Your task to perform on an android device: Open Google Chrome and open the bookmarks view Image 0: 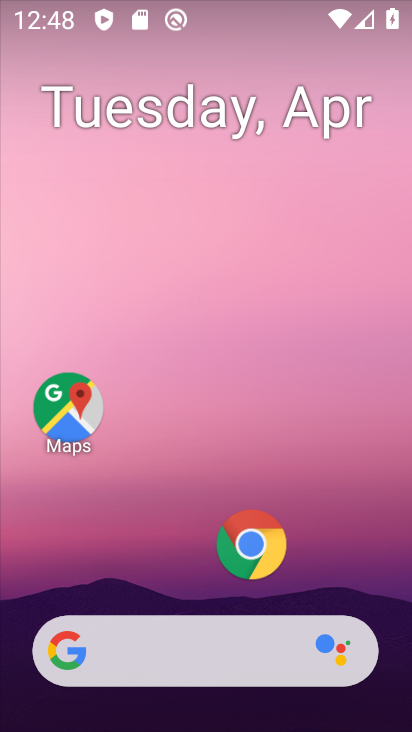
Step 0: drag from (332, 415) to (345, 178)
Your task to perform on an android device: Open Google Chrome and open the bookmarks view Image 1: 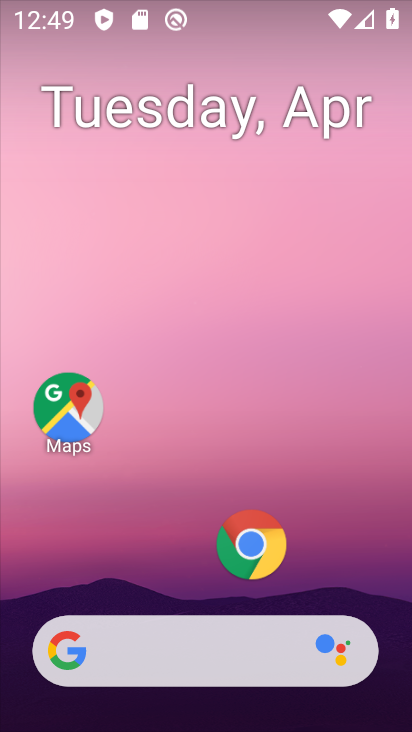
Step 1: drag from (141, 552) to (231, 62)
Your task to perform on an android device: Open Google Chrome and open the bookmarks view Image 2: 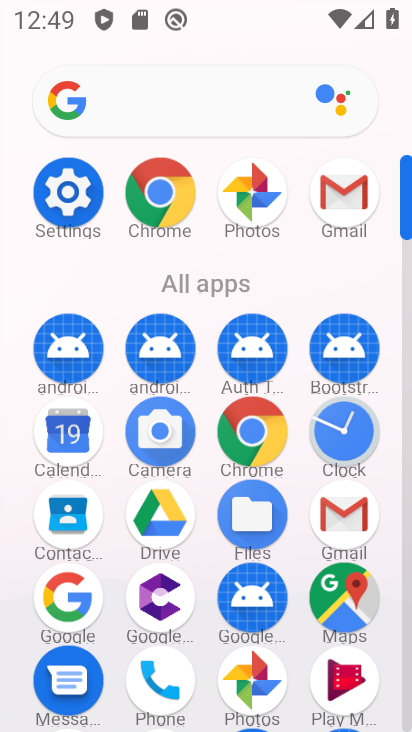
Step 2: click (255, 434)
Your task to perform on an android device: Open Google Chrome and open the bookmarks view Image 3: 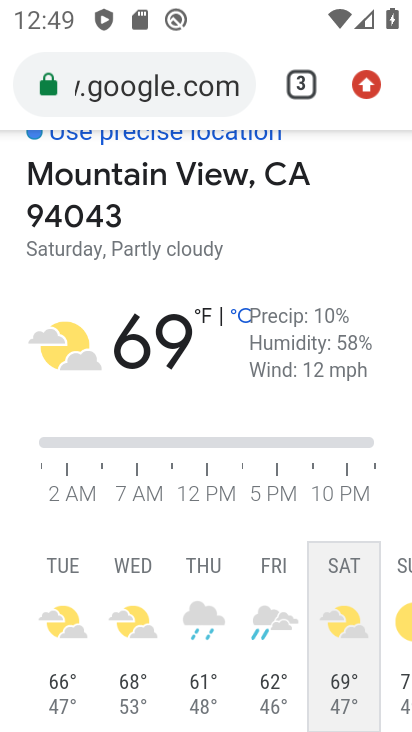
Step 3: click (378, 86)
Your task to perform on an android device: Open Google Chrome and open the bookmarks view Image 4: 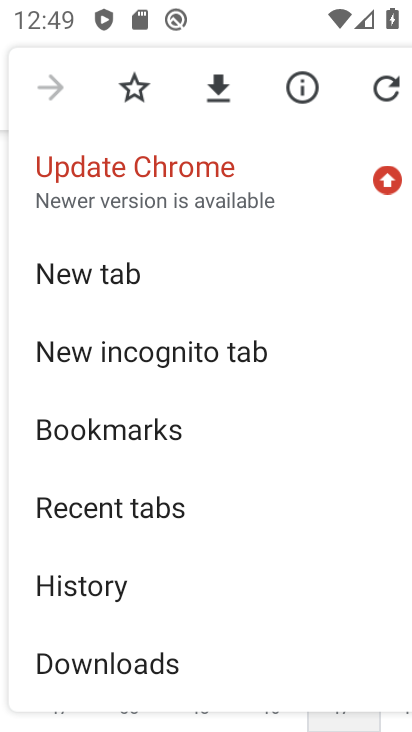
Step 4: click (133, 429)
Your task to perform on an android device: Open Google Chrome and open the bookmarks view Image 5: 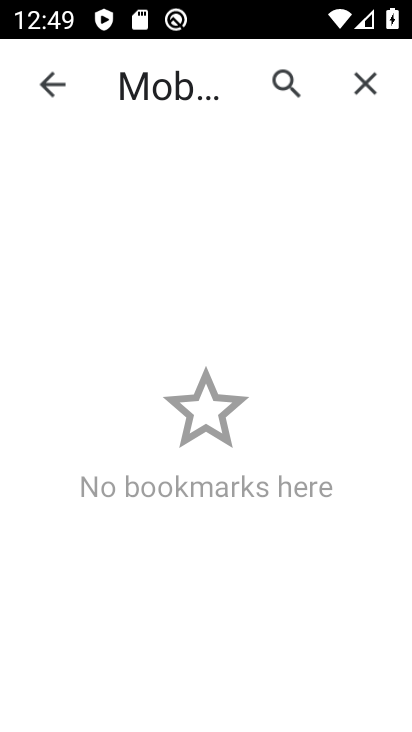
Step 5: task complete